Your task to perform on an android device: install app "Calculator" Image 0: 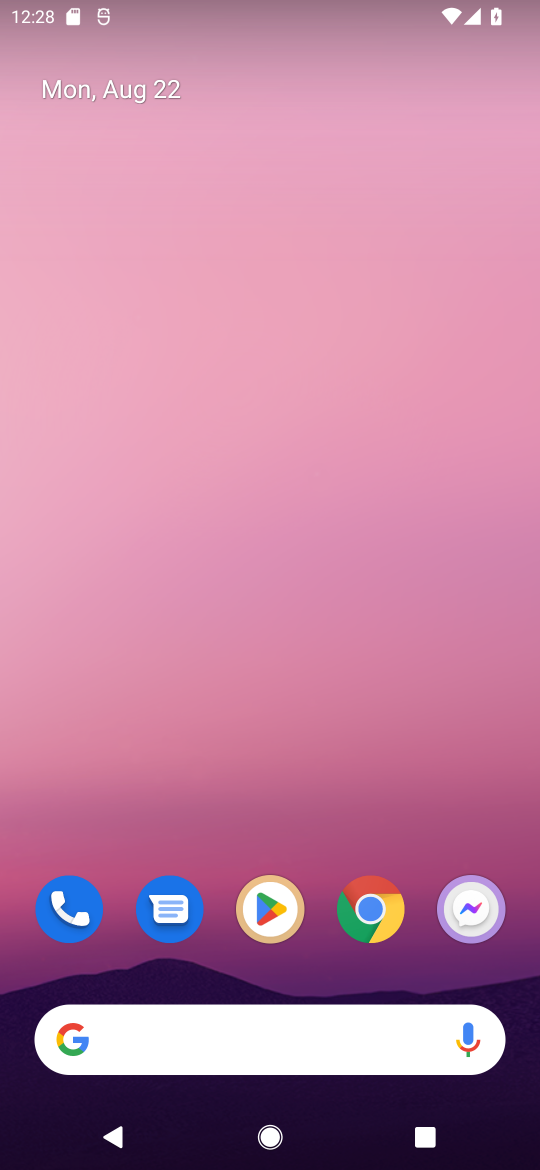
Step 0: click (273, 905)
Your task to perform on an android device: install app "Calculator" Image 1: 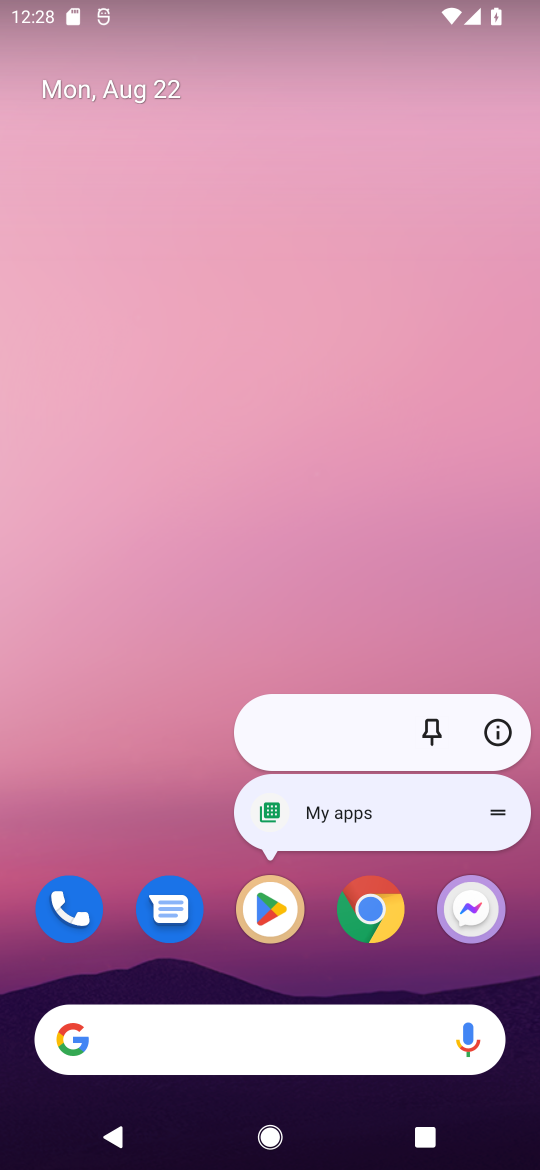
Step 1: click (266, 891)
Your task to perform on an android device: install app "Calculator" Image 2: 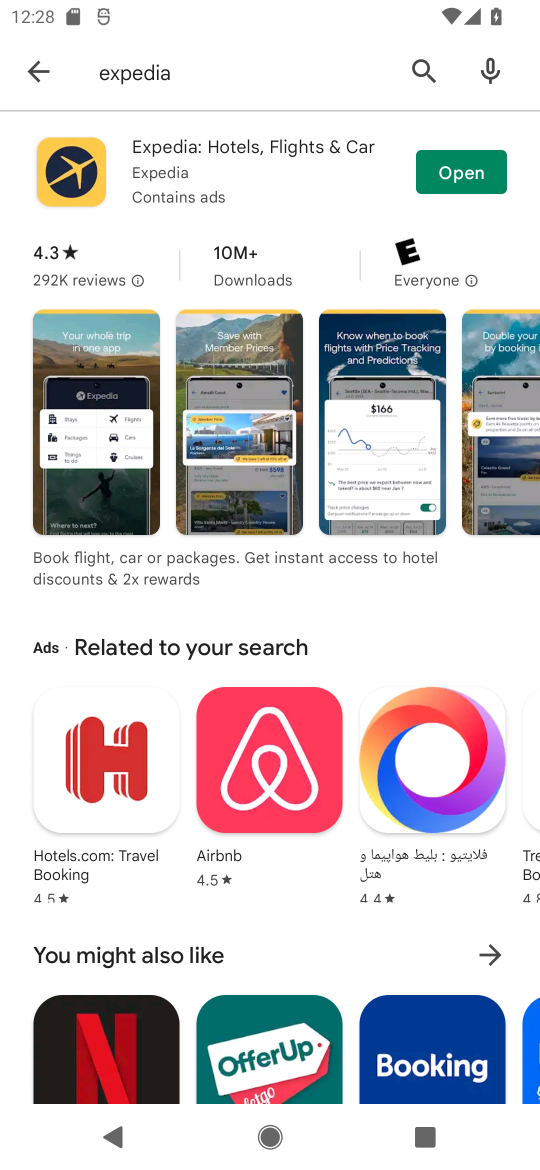
Step 2: click (431, 67)
Your task to perform on an android device: install app "Calculator" Image 3: 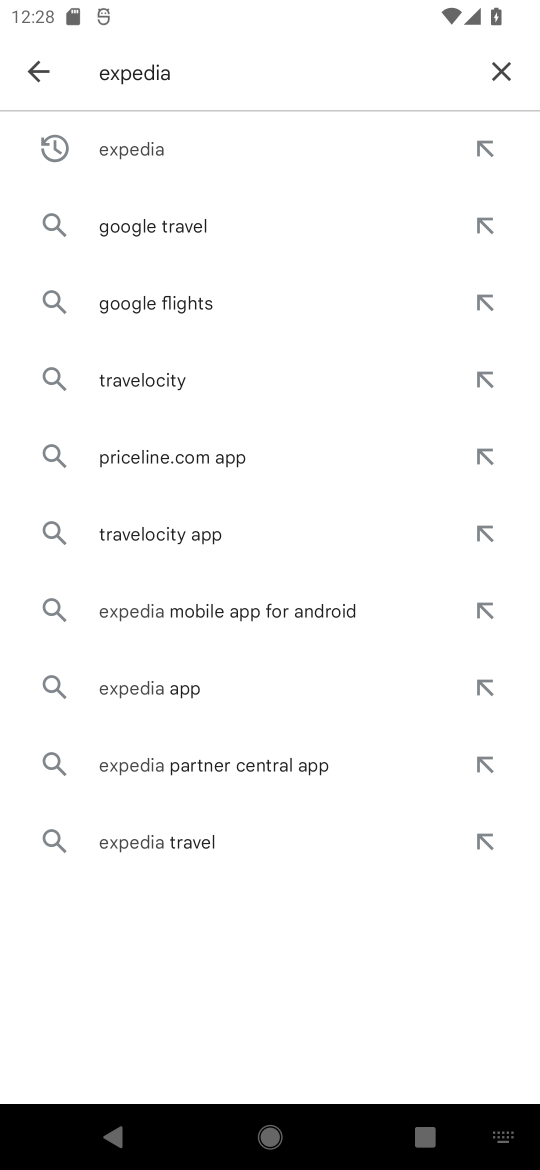
Step 3: click (509, 69)
Your task to perform on an android device: install app "Calculator" Image 4: 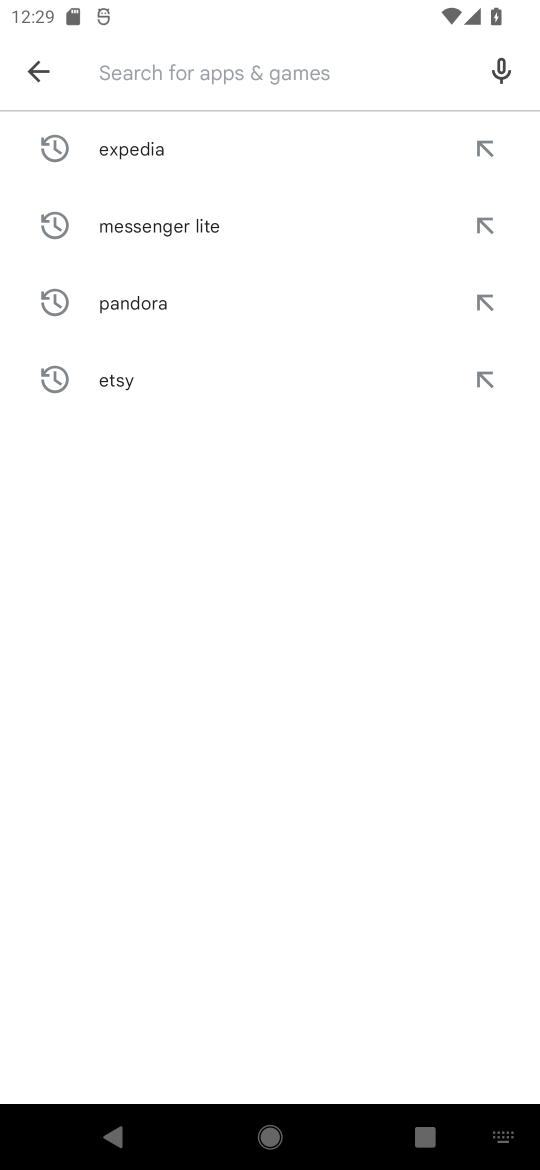
Step 4: click (229, 74)
Your task to perform on an android device: install app "Calculator" Image 5: 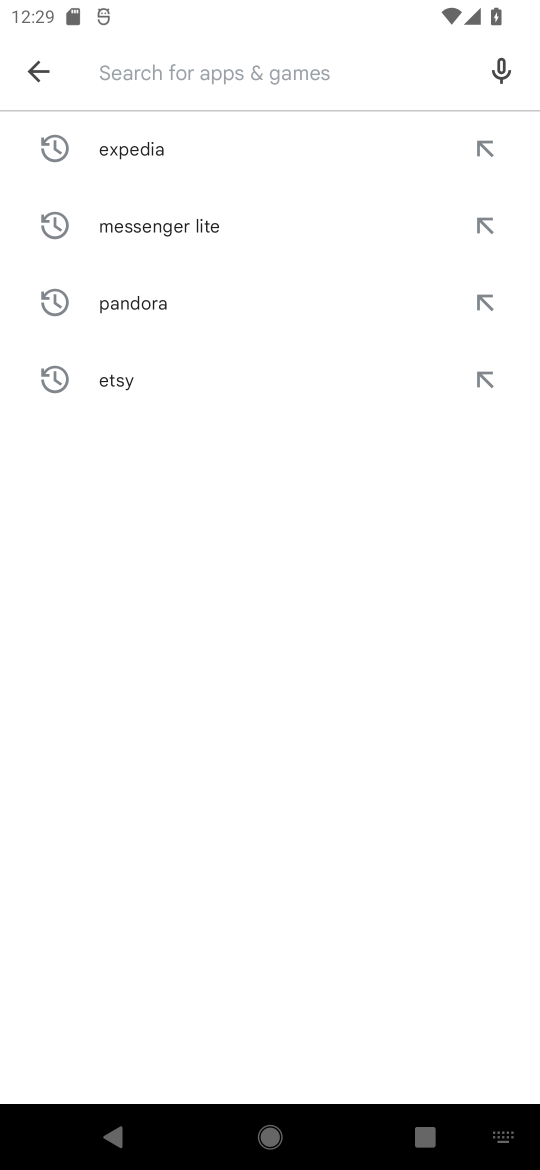
Step 5: click (199, 71)
Your task to perform on an android device: install app "Calculator" Image 6: 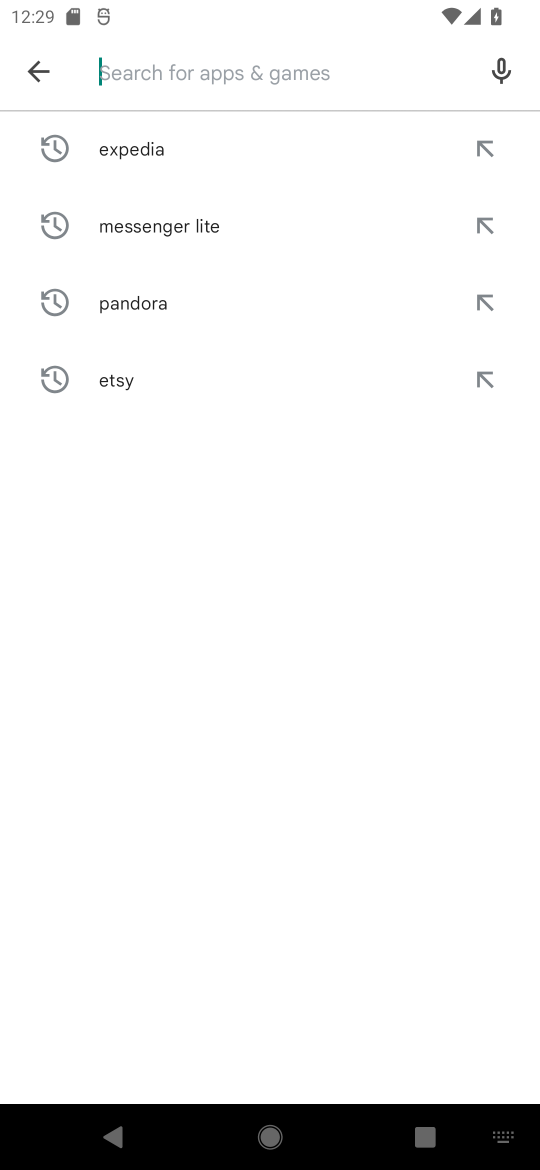
Step 6: type "Calculator"
Your task to perform on an android device: install app "Calculator" Image 7: 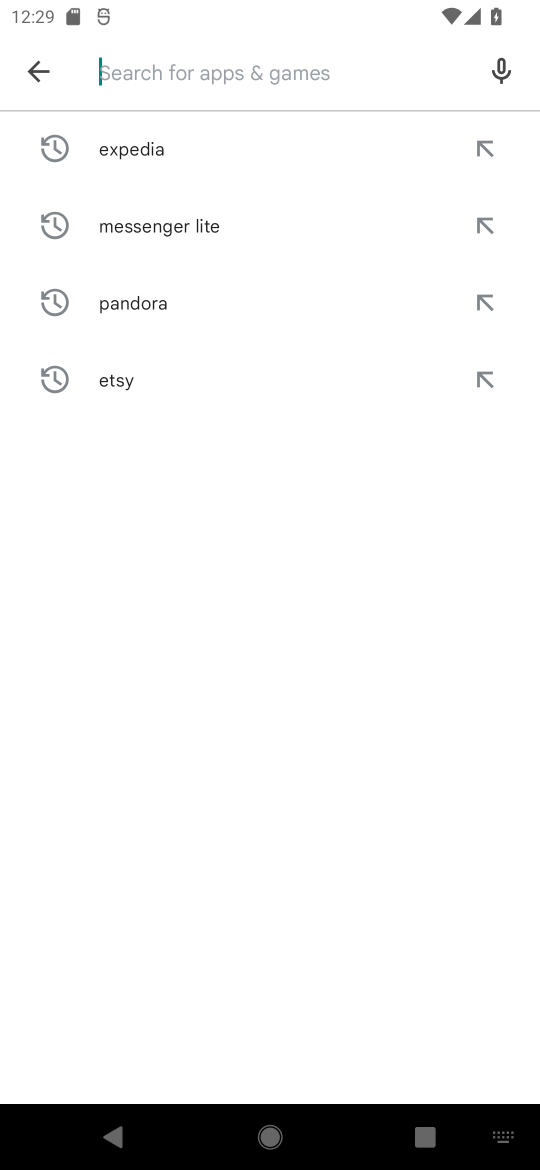
Step 7: click (351, 779)
Your task to perform on an android device: install app "Calculator" Image 8: 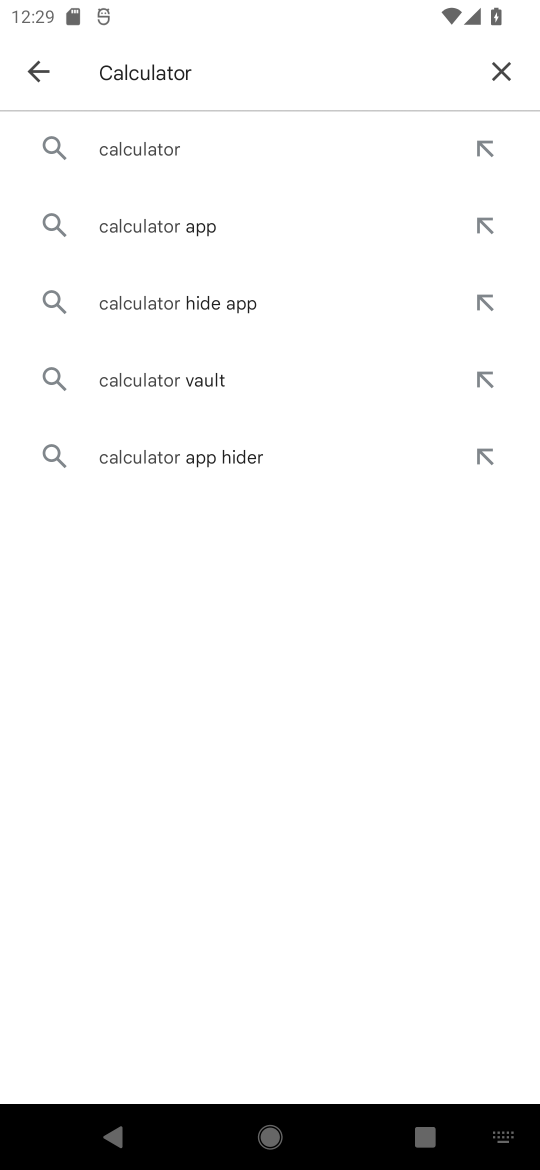
Step 8: click (197, 140)
Your task to perform on an android device: install app "Calculator" Image 9: 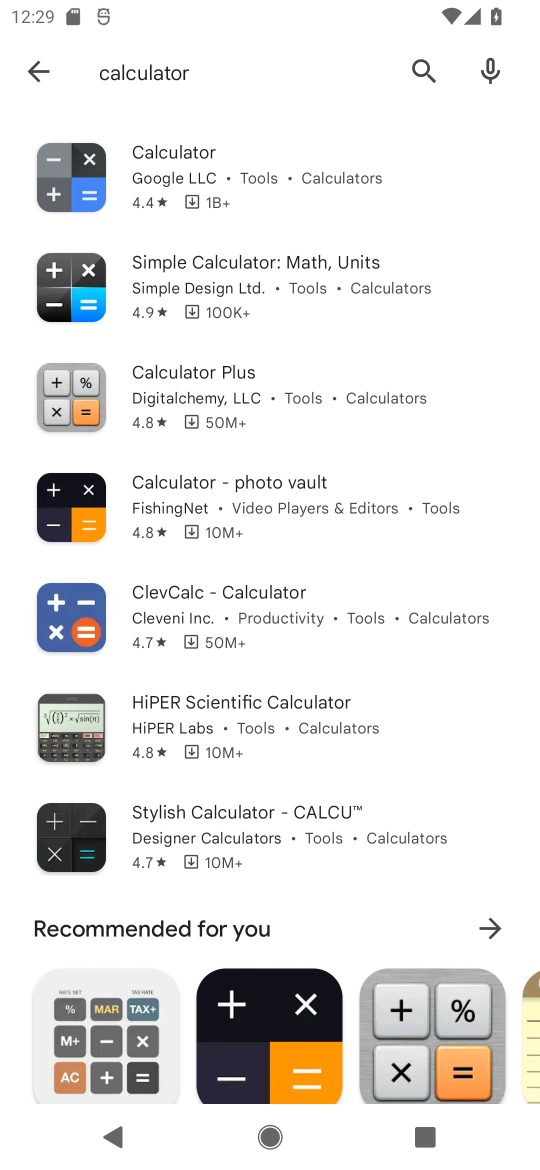
Step 9: click (162, 159)
Your task to perform on an android device: install app "Calculator" Image 10: 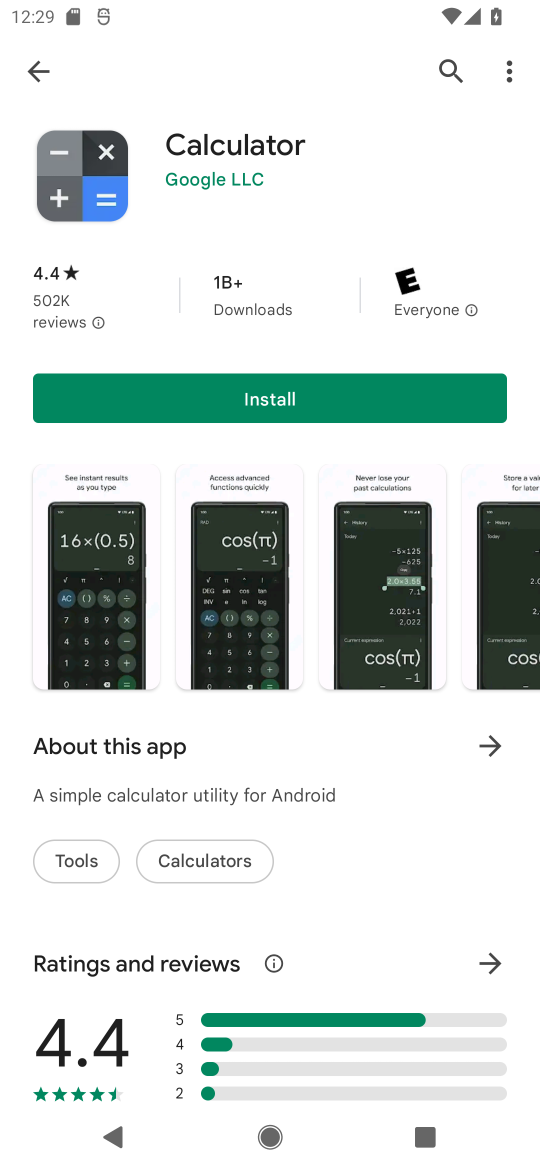
Step 10: click (270, 393)
Your task to perform on an android device: install app "Calculator" Image 11: 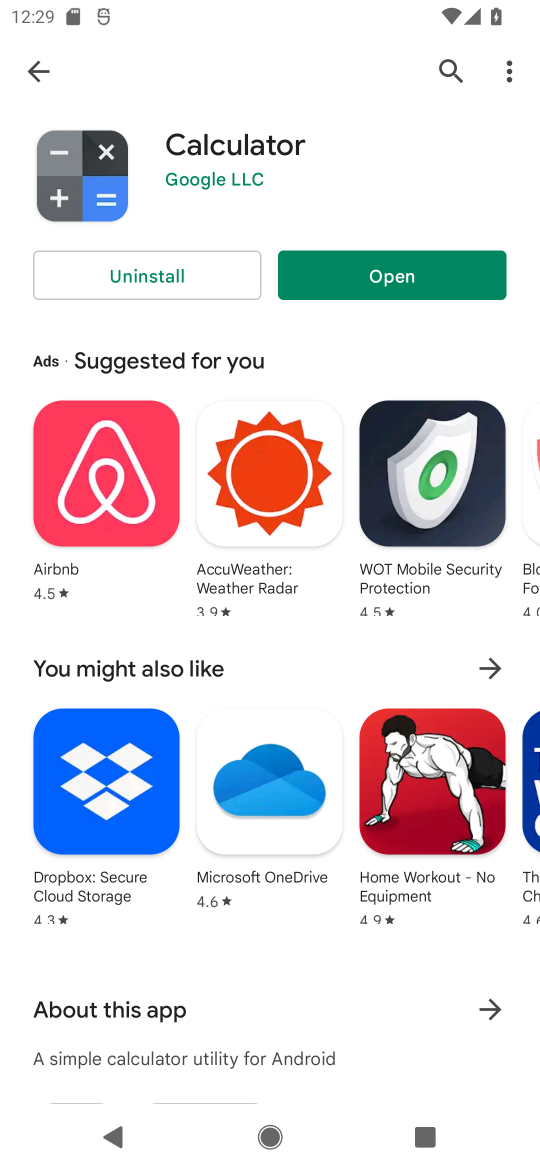
Step 11: task complete